Your task to perform on an android device: Open calendar and show me the first week of next month Image 0: 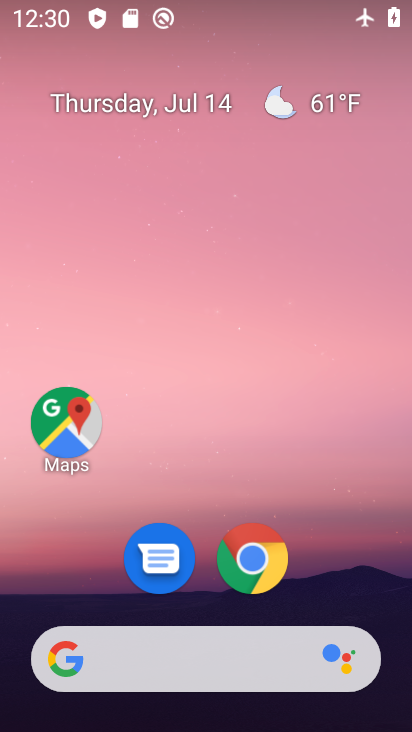
Step 0: drag from (180, 602) to (279, 76)
Your task to perform on an android device: Open calendar and show me the first week of next month Image 1: 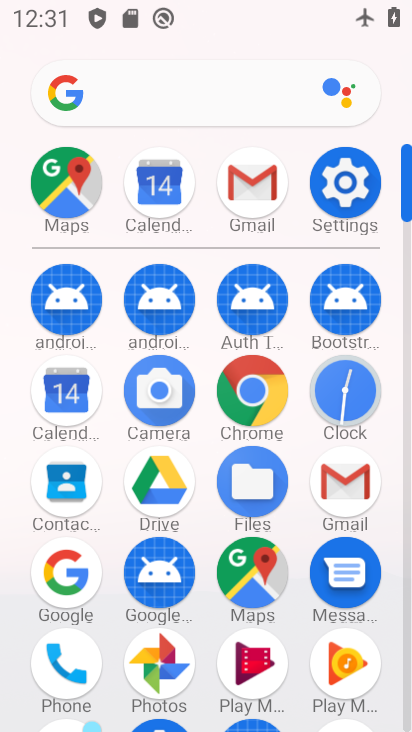
Step 1: click (65, 391)
Your task to perform on an android device: Open calendar and show me the first week of next month Image 2: 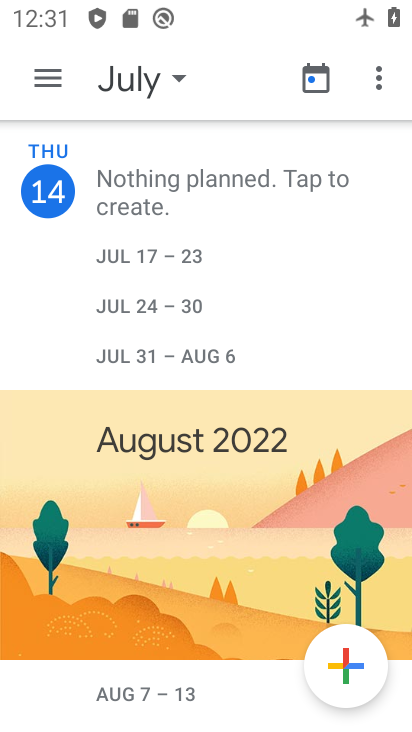
Step 2: click (172, 82)
Your task to perform on an android device: Open calendar and show me the first week of next month Image 3: 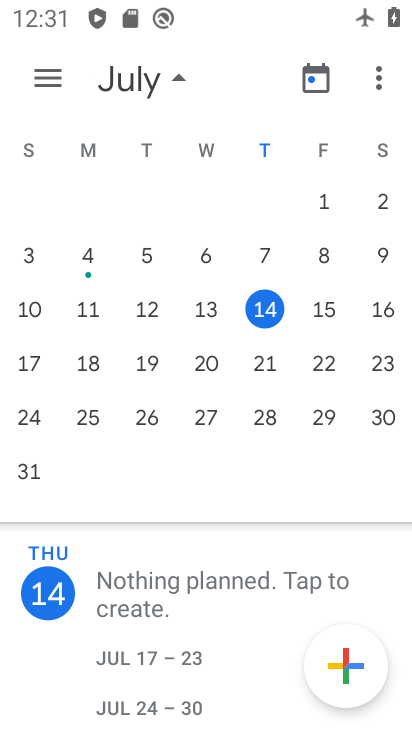
Step 3: drag from (345, 321) to (3, 306)
Your task to perform on an android device: Open calendar and show me the first week of next month Image 4: 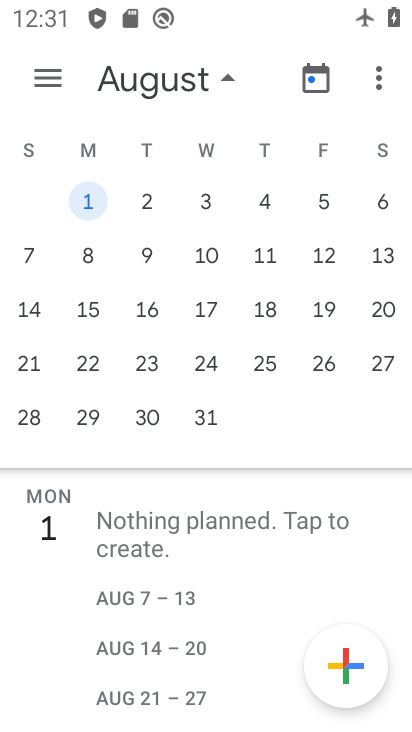
Step 4: click (85, 199)
Your task to perform on an android device: Open calendar and show me the first week of next month Image 5: 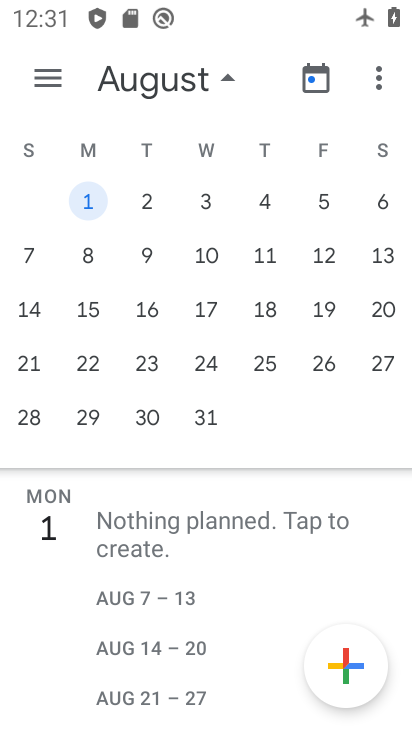
Step 5: task complete